Your task to perform on an android device: What's the weather going to be tomorrow? Image 0: 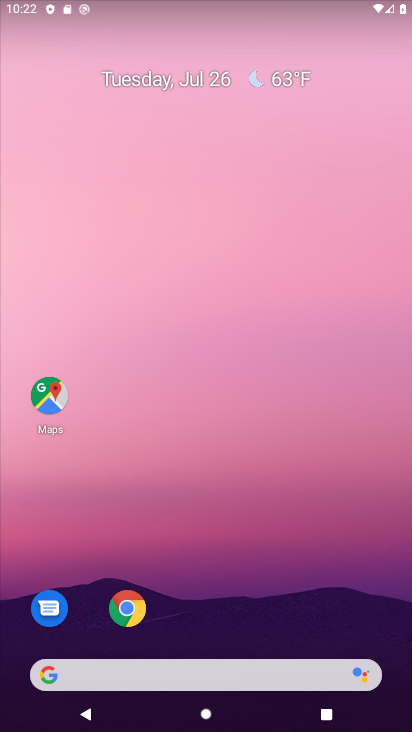
Step 0: press home button
Your task to perform on an android device: What's the weather going to be tomorrow? Image 1: 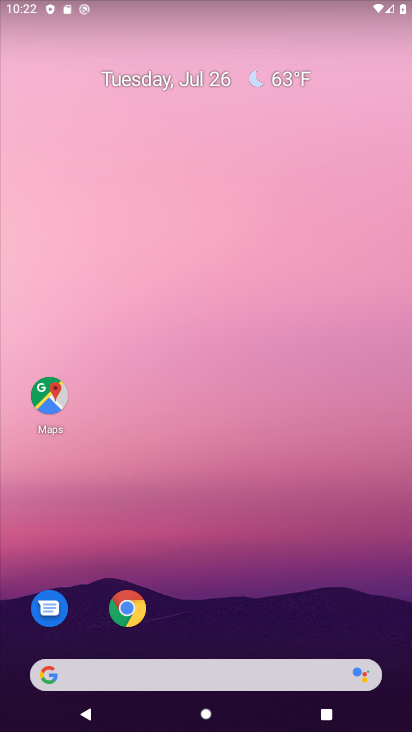
Step 1: click (42, 680)
Your task to perform on an android device: What's the weather going to be tomorrow? Image 2: 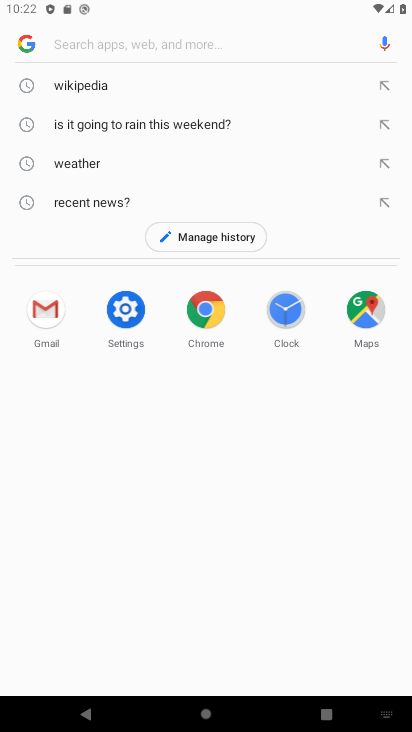
Step 2: type "What's the weather going to be tomorrow?"
Your task to perform on an android device: What's the weather going to be tomorrow? Image 3: 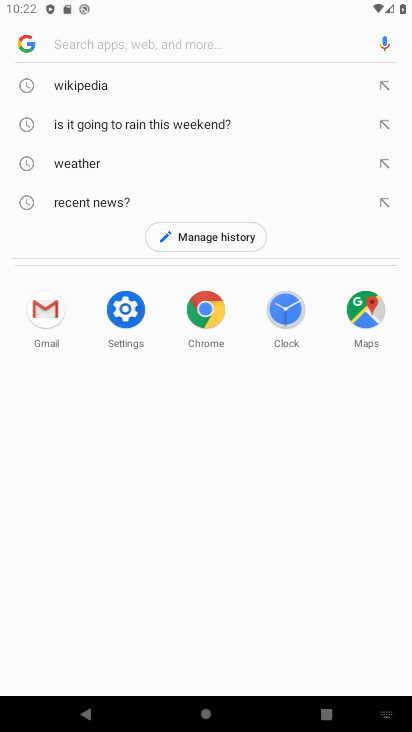
Step 3: click (211, 47)
Your task to perform on an android device: What's the weather going to be tomorrow? Image 4: 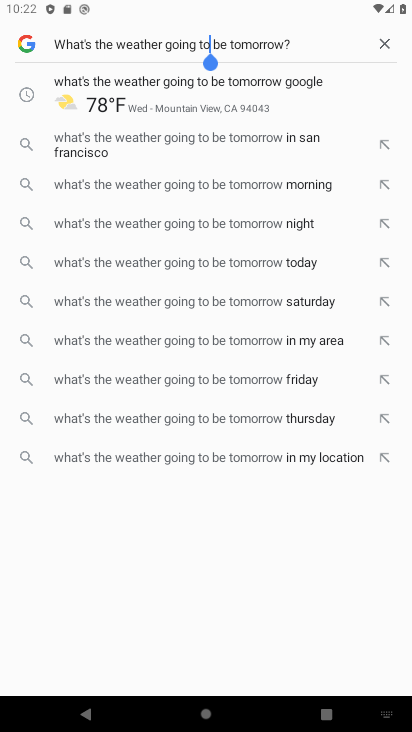
Step 4: press enter
Your task to perform on an android device: What's the weather going to be tomorrow? Image 5: 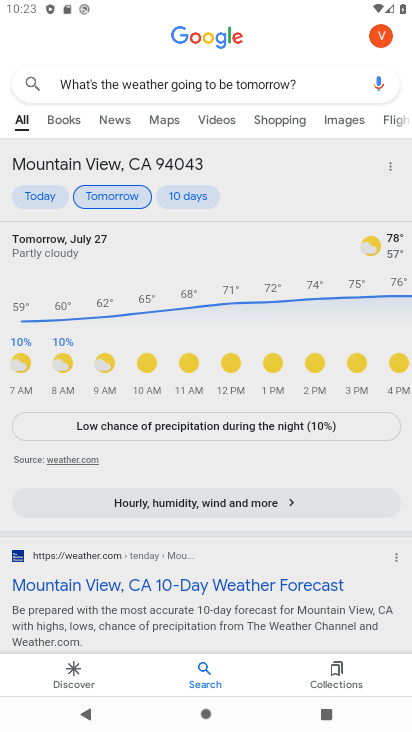
Step 5: task complete